Your task to perform on an android device: turn on javascript in the chrome app Image 0: 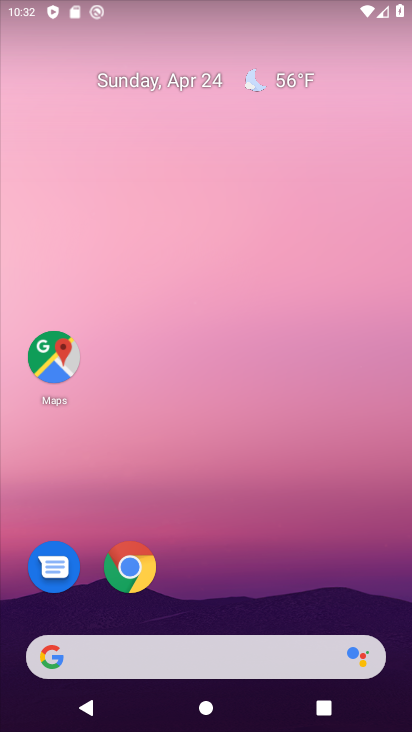
Step 0: click (121, 562)
Your task to perform on an android device: turn on javascript in the chrome app Image 1: 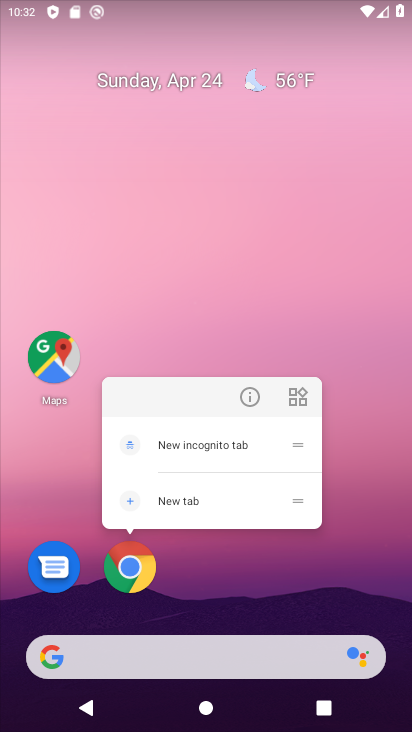
Step 1: click (121, 562)
Your task to perform on an android device: turn on javascript in the chrome app Image 2: 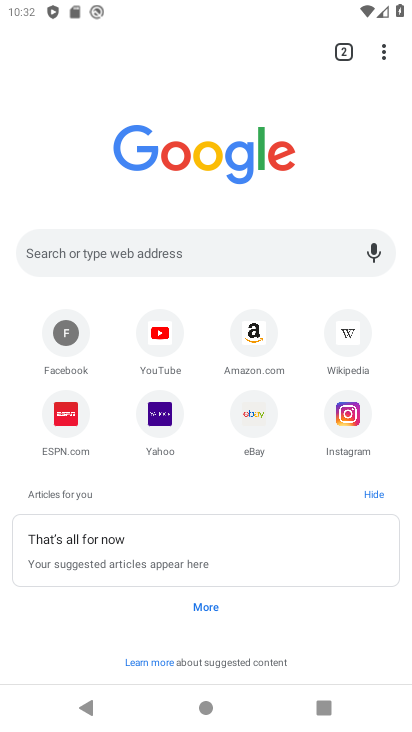
Step 2: click (381, 49)
Your task to perform on an android device: turn on javascript in the chrome app Image 3: 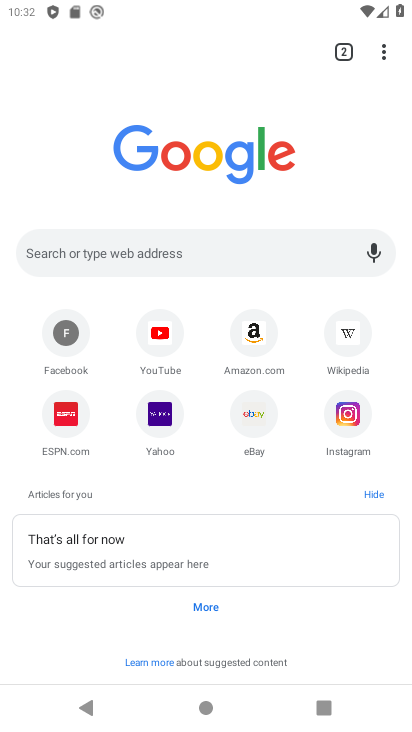
Step 3: click (381, 49)
Your task to perform on an android device: turn on javascript in the chrome app Image 4: 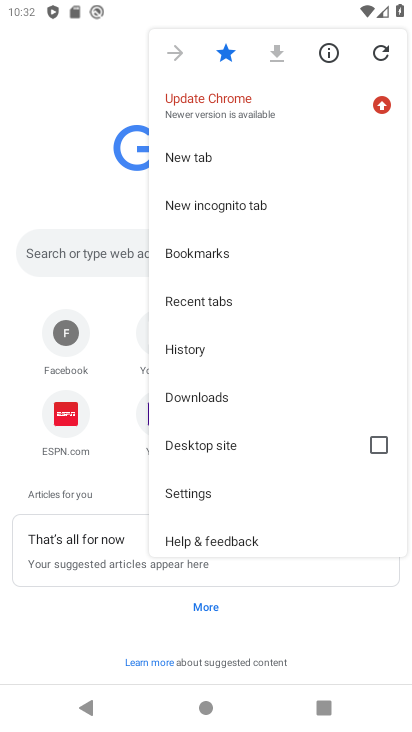
Step 4: click (185, 487)
Your task to perform on an android device: turn on javascript in the chrome app Image 5: 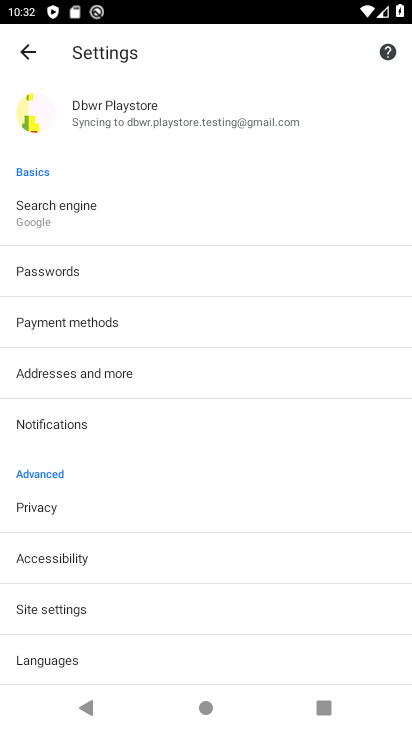
Step 5: click (44, 606)
Your task to perform on an android device: turn on javascript in the chrome app Image 6: 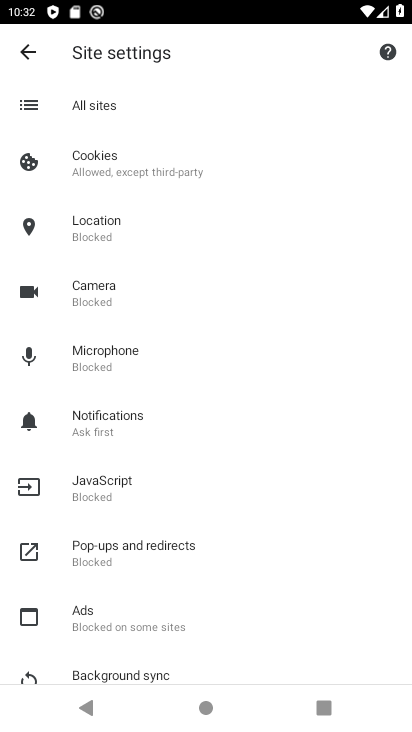
Step 6: click (103, 490)
Your task to perform on an android device: turn on javascript in the chrome app Image 7: 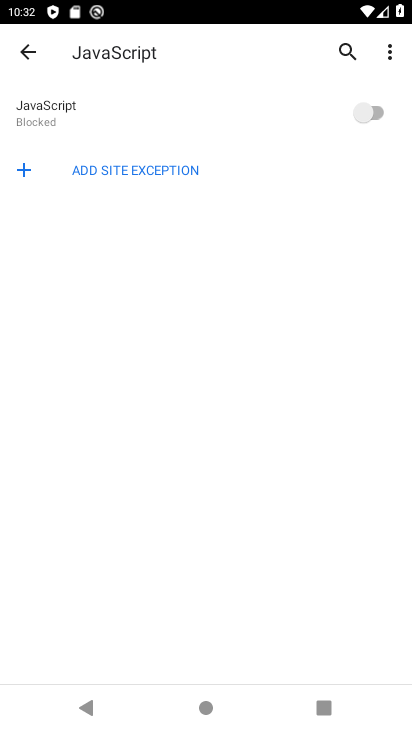
Step 7: click (378, 111)
Your task to perform on an android device: turn on javascript in the chrome app Image 8: 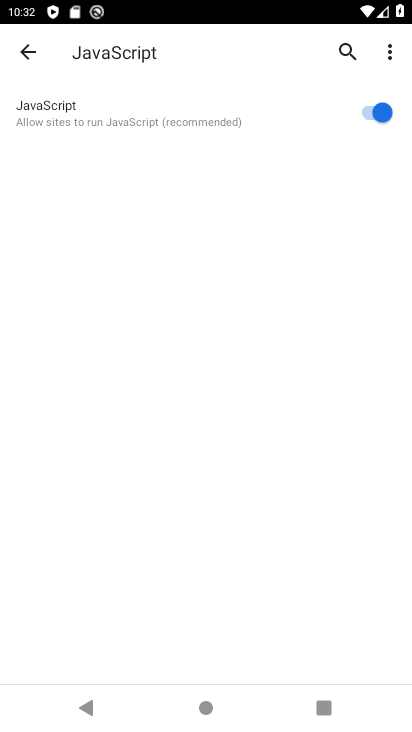
Step 8: task complete